Your task to perform on an android device: Go to network settings Image 0: 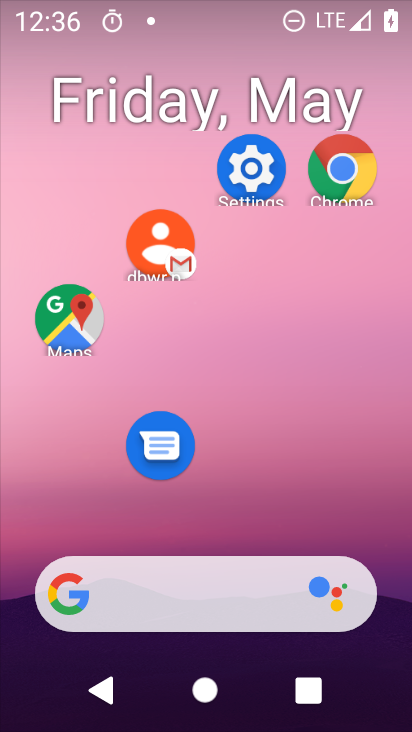
Step 0: click (0, 445)
Your task to perform on an android device: Go to network settings Image 1: 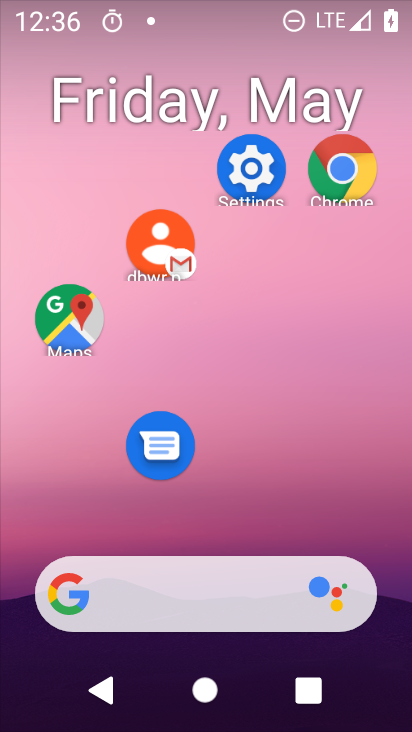
Step 1: drag from (218, 507) to (293, 70)
Your task to perform on an android device: Go to network settings Image 2: 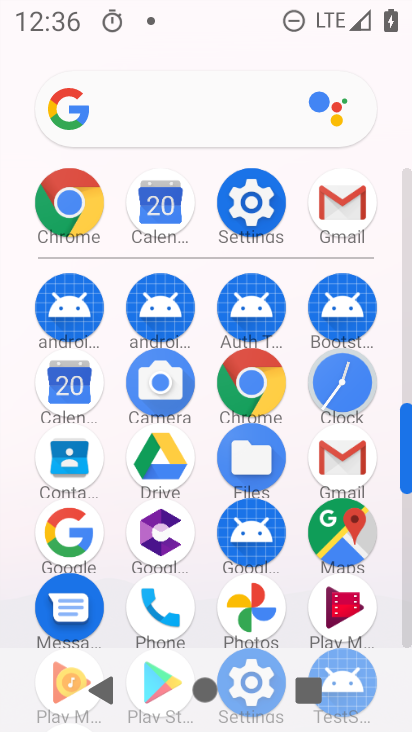
Step 2: drag from (223, 579) to (225, 177)
Your task to perform on an android device: Go to network settings Image 3: 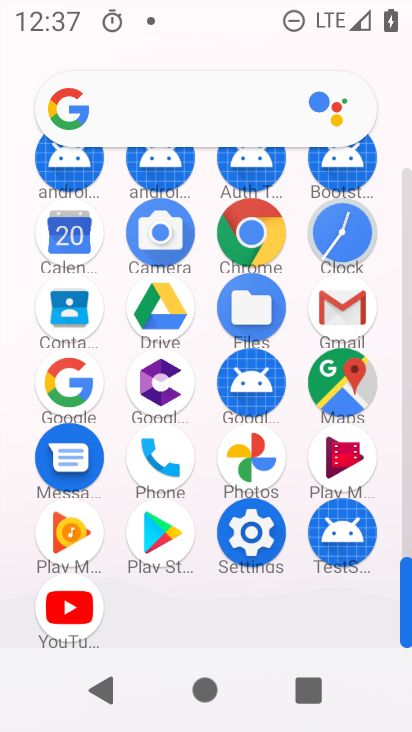
Step 3: click (257, 547)
Your task to perform on an android device: Go to network settings Image 4: 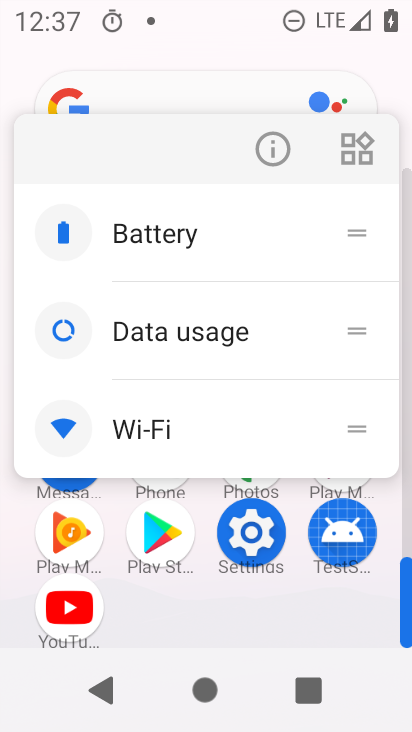
Step 4: click (271, 139)
Your task to perform on an android device: Go to network settings Image 5: 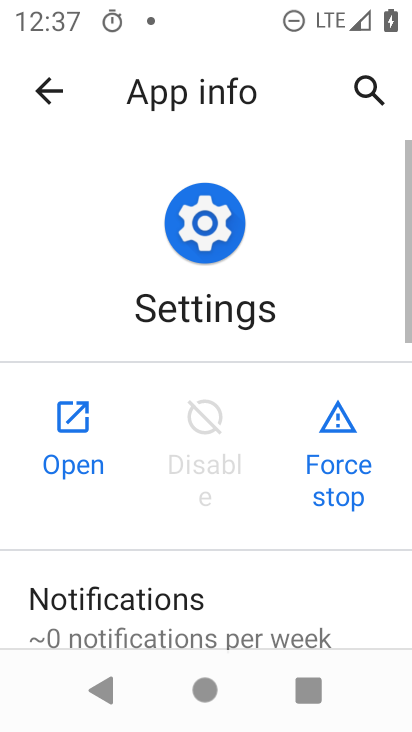
Step 5: click (79, 441)
Your task to perform on an android device: Go to network settings Image 6: 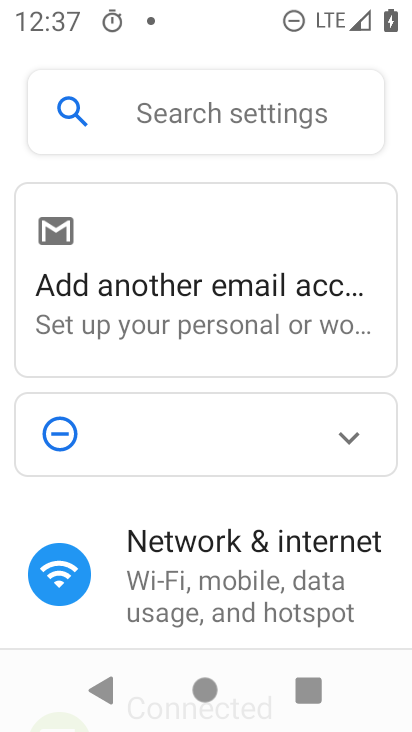
Step 6: click (232, 575)
Your task to perform on an android device: Go to network settings Image 7: 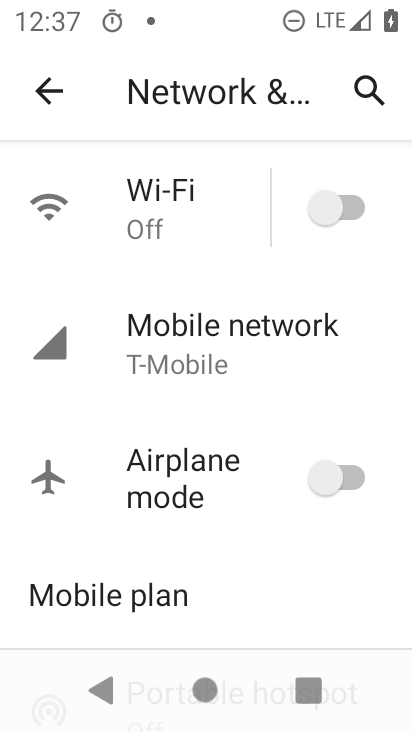
Step 7: task complete